Your task to perform on an android device: Do I have any events today? Image 0: 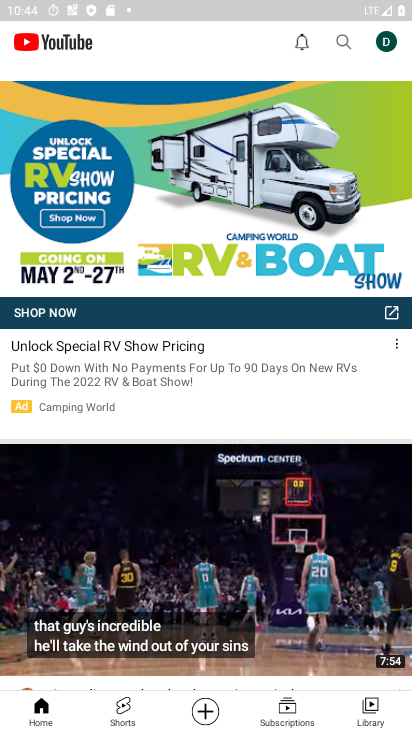
Step 0: press home button
Your task to perform on an android device: Do I have any events today? Image 1: 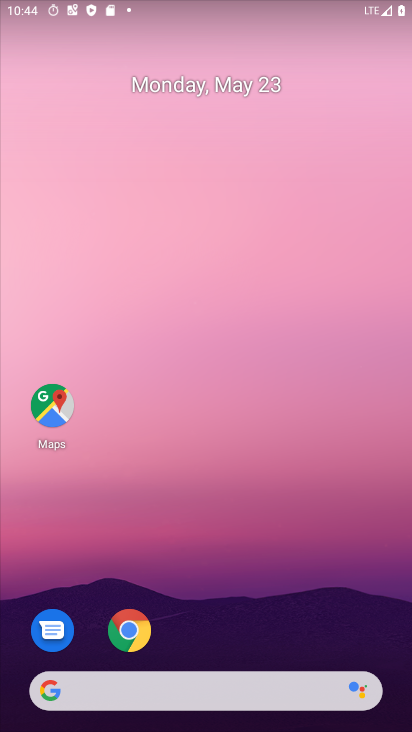
Step 1: drag from (290, 654) to (367, 3)
Your task to perform on an android device: Do I have any events today? Image 2: 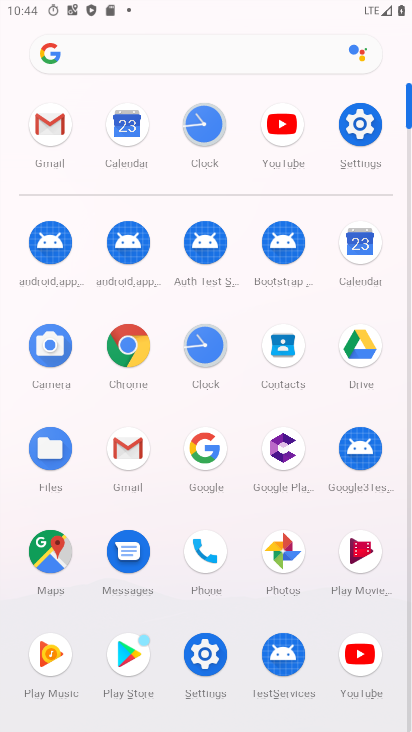
Step 2: click (120, 123)
Your task to perform on an android device: Do I have any events today? Image 3: 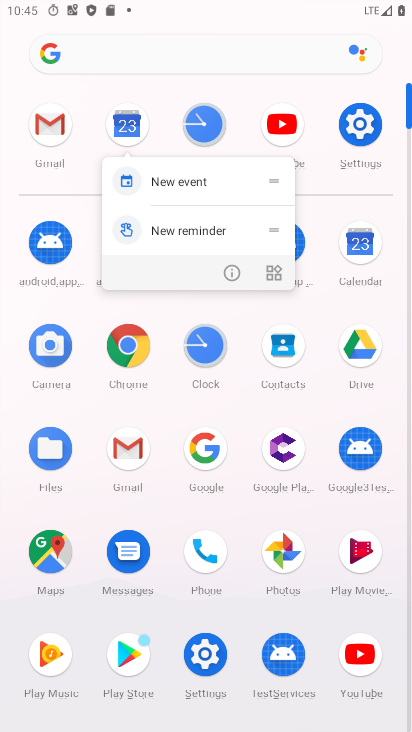
Step 3: click (127, 129)
Your task to perform on an android device: Do I have any events today? Image 4: 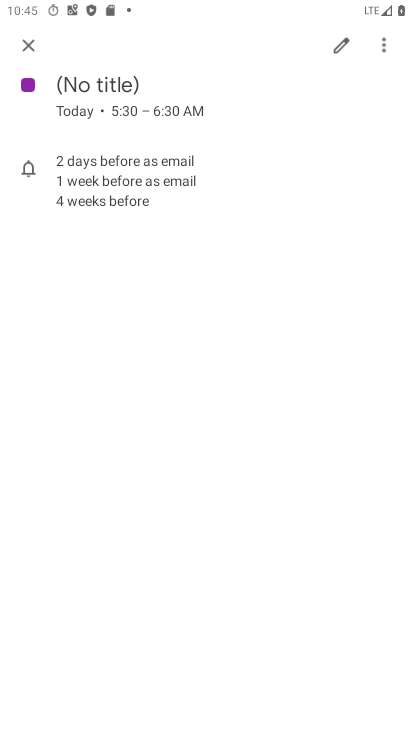
Step 4: click (25, 48)
Your task to perform on an android device: Do I have any events today? Image 5: 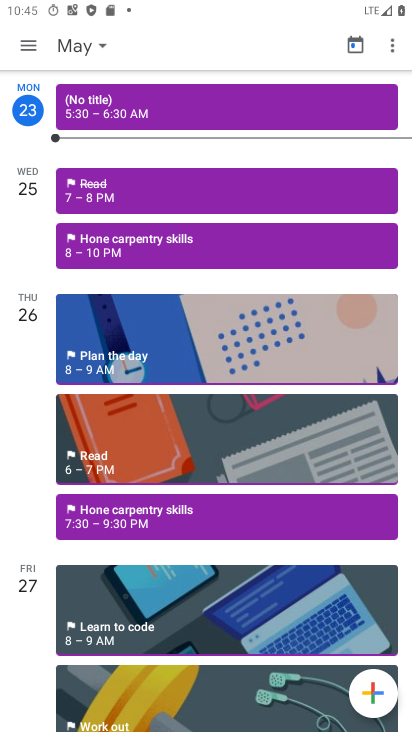
Step 5: click (119, 112)
Your task to perform on an android device: Do I have any events today? Image 6: 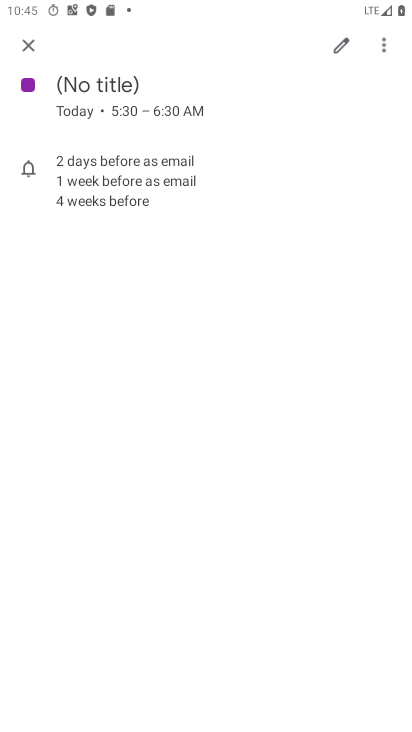
Step 6: task complete